Your task to perform on an android device: move an email to a new category in the gmail app Image 0: 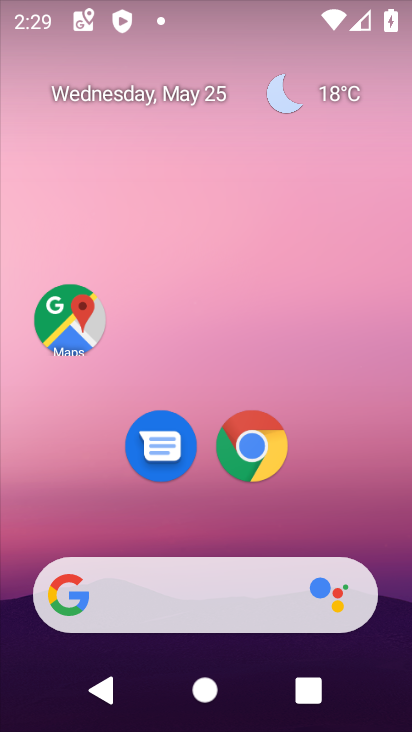
Step 0: drag from (211, 578) to (200, 107)
Your task to perform on an android device: move an email to a new category in the gmail app Image 1: 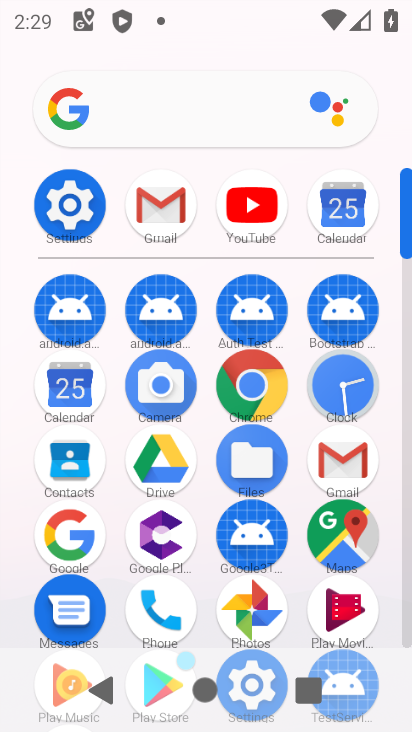
Step 1: click (336, 443)
Your task to perform on an android device: move an email to a new category in the gmail app Image 2: 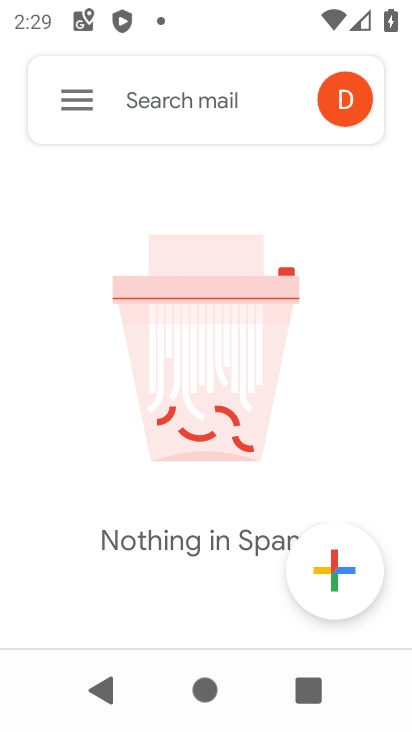
Step 2: click (66, 94)
Your task to perform on an android device: move an email to a new category in the gmail app Image 3: 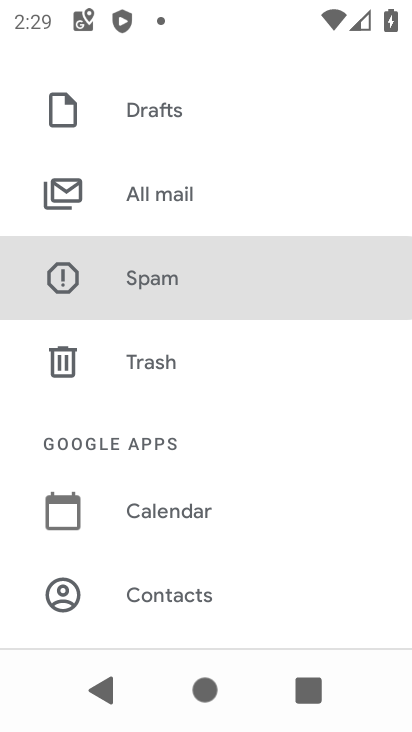
Step 3: click (130, 189)
Your task to perform on an android device: move an email to a new category in the gmail app Image 4: 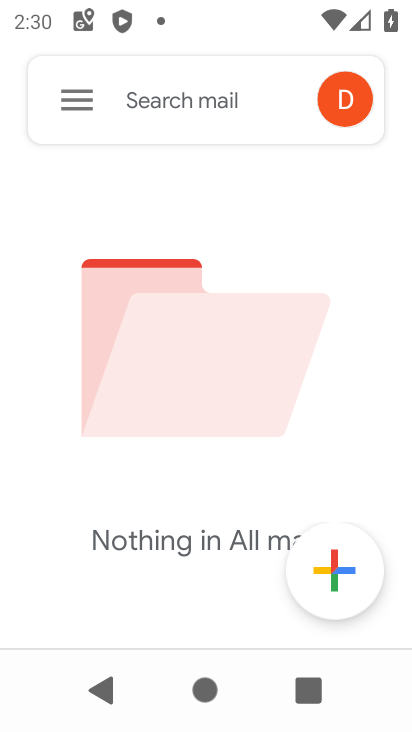
Step 4: task complete